Your task to perform on an android device: Search for seafood restaurants on Google Maps Image 0: 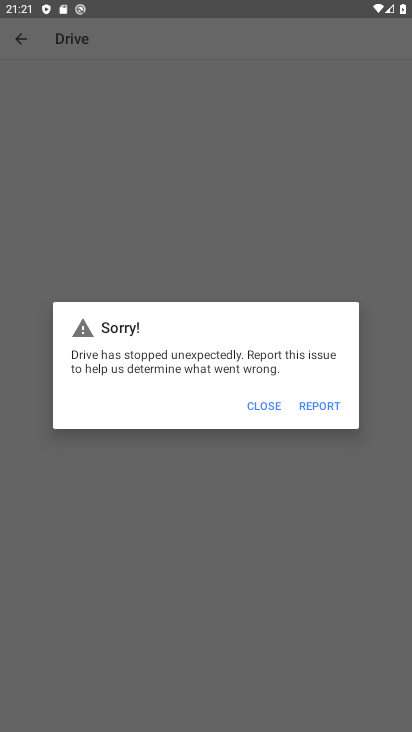
Step 0: press home button
Your task to perform on an android device: Search for seafood restaurants on Google Maps Image 1: 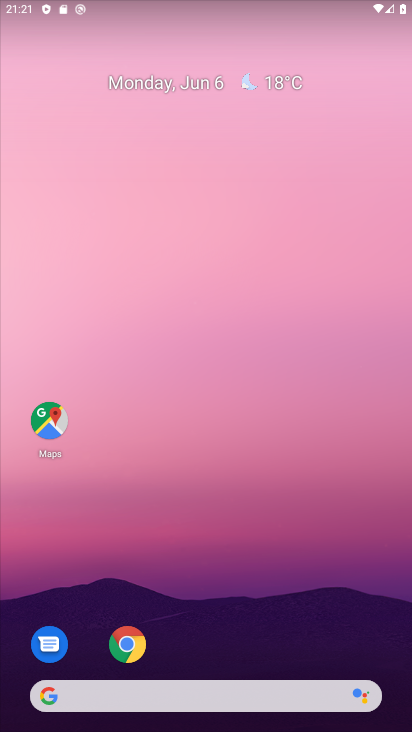
Step 1: drag from (345, 409) to (349, 87)
Your task to perform on an android device: Search for seafood restaurants on Google Maps Image 2: 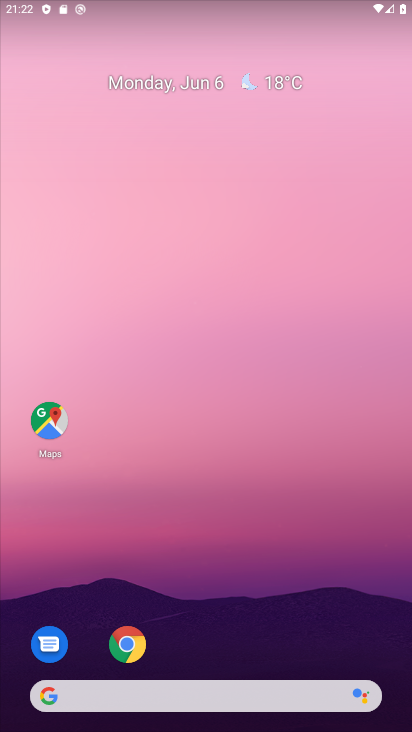
Step 2: drag from (341, 620) to (330, 114)
Your task to perform on an android device: Search for seafood restaurants on Google Maps Image 3: 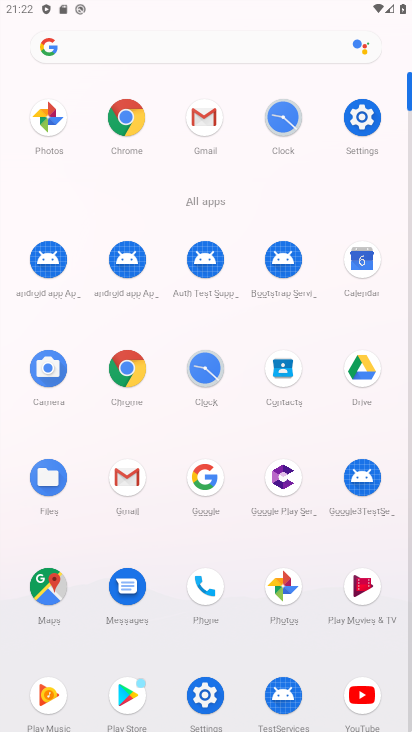
Step 3: click (50, 582)
Your task to perform on an android device: Search for seafood restaurants on Google Maps Image 4: 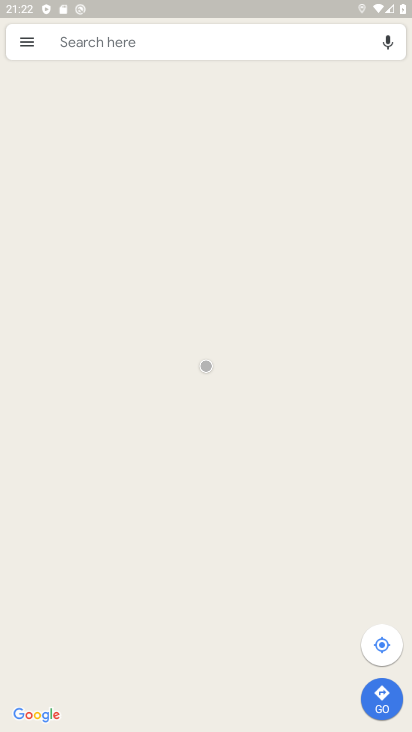
Step 4: click (261, 43)
Your task to perform on an android device: Search for seafood restaurants on Google Maps Image 5: 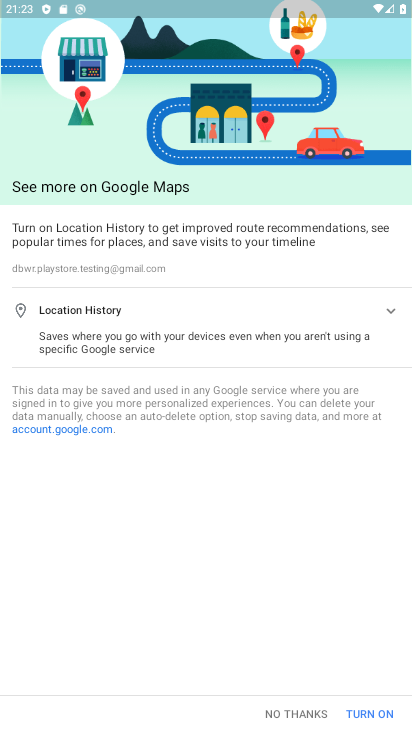
Step 5: click (281, 718)
Your task to perform on an android device: Search for seafood restaurants on Google Maps Image 6: 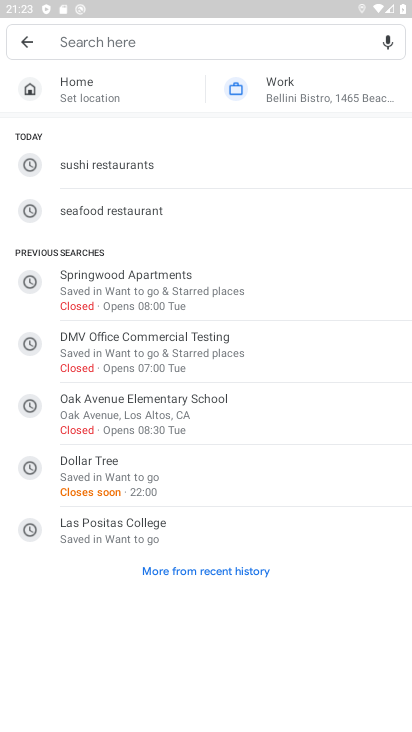
Step 6: click (135, 207)
Your task to perform on an android device: Search for seafood restaurants on Google Maps Image 7: 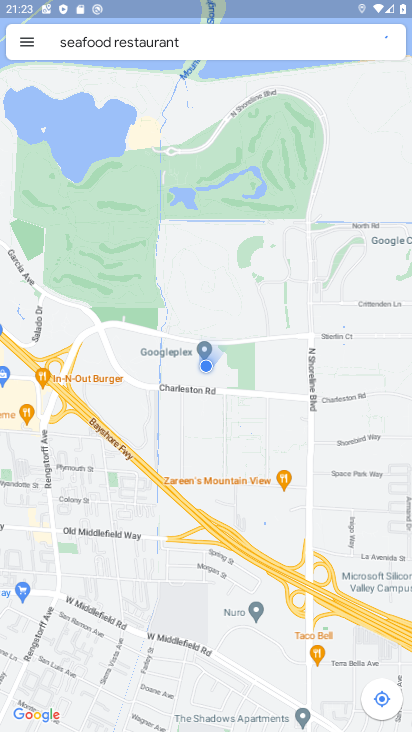
Step 7: task complete